Your task to perform on an android device: Open CNN.com Image 0: 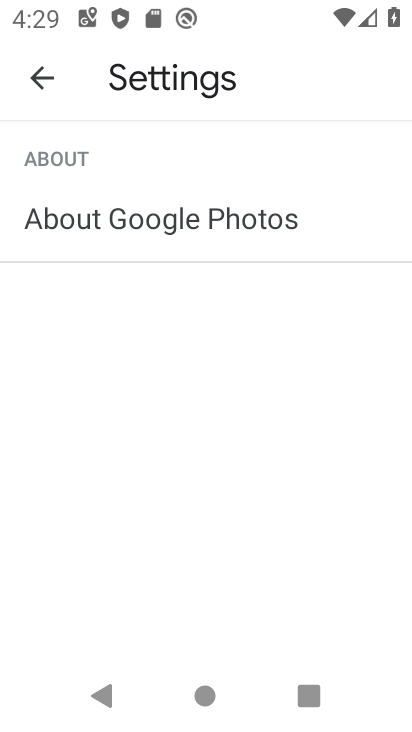
Step 0: press home button
Your task to perform on an android device: Open CNN.com Image 1: 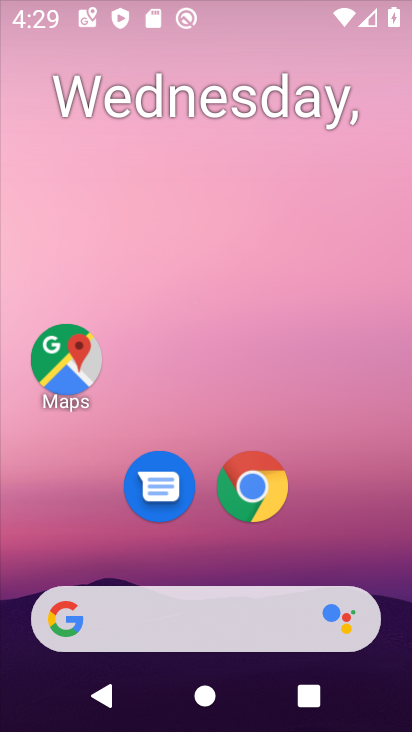
Step 1: drag from (213, 598) to (197, 194)
Your task to perform on an android device: Open CNN.com Image 2: 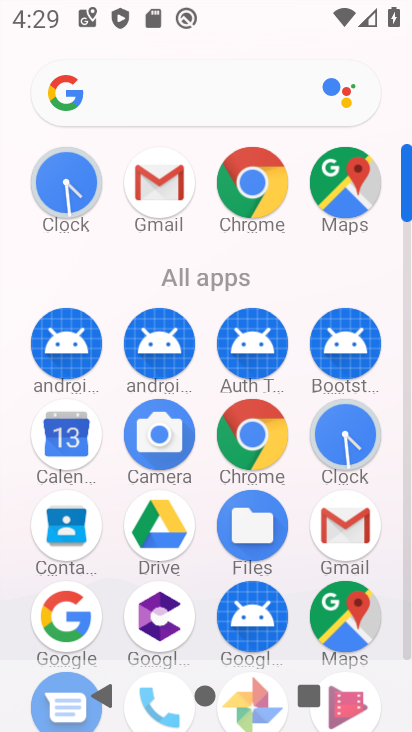
Step 2: drag from (217, 498) to (198, 241)
Your task to perform on an android device: Open CNN.com Image 3: 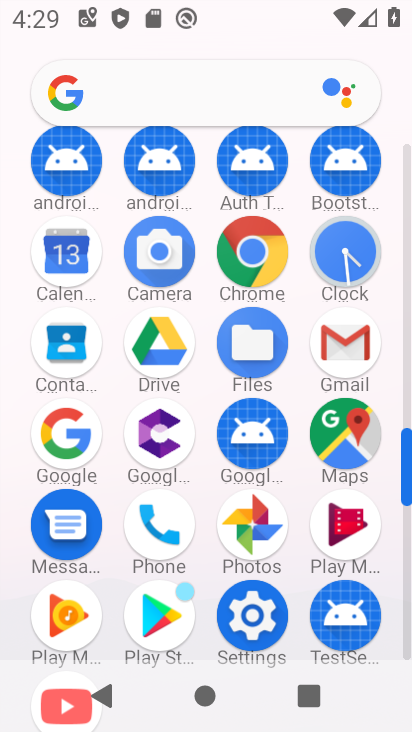
Step 3: click (266, 262)
Your task to perform on an android device: Open CNN.com Image 4: 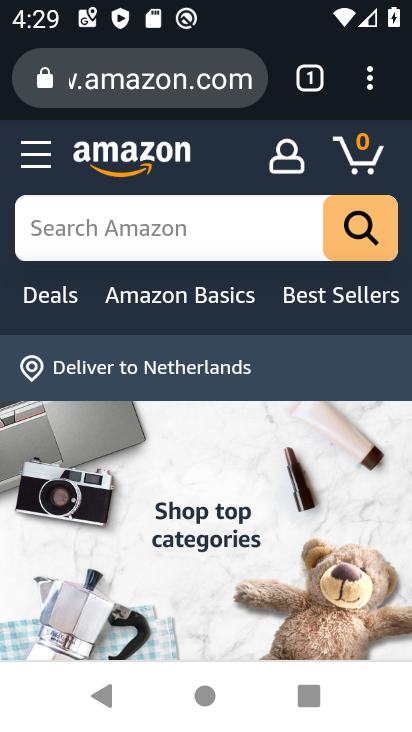
Step 4: click (189, 99)
Your task to perform on an android device: Open CNN.com Image 5: 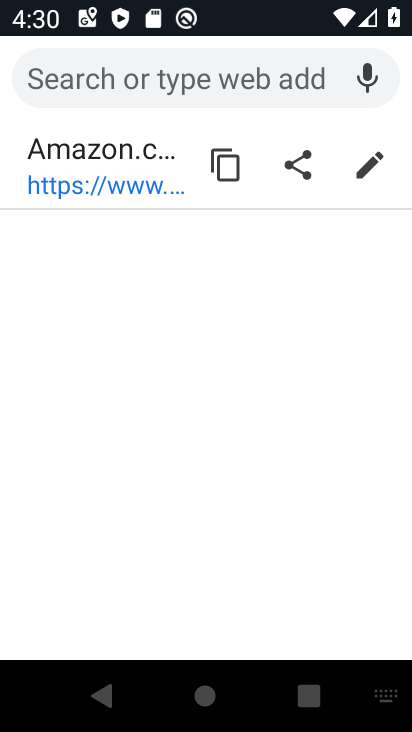
Step 5: type "cnn"
Your task to perform on an android device: Open CNN.com Image 6: 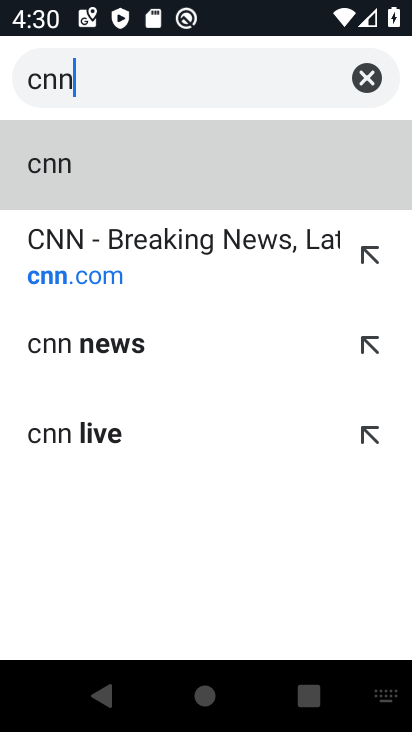
Step 6: click (203, 270)
Your task to perform on an android device: Open CNN.com Image 7: 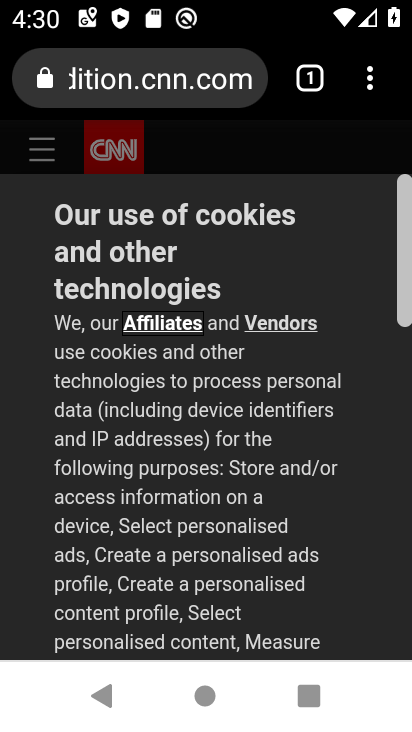
Step 7: task complete